Your task to perform on an android device: Turn on the flashlight Image 0: 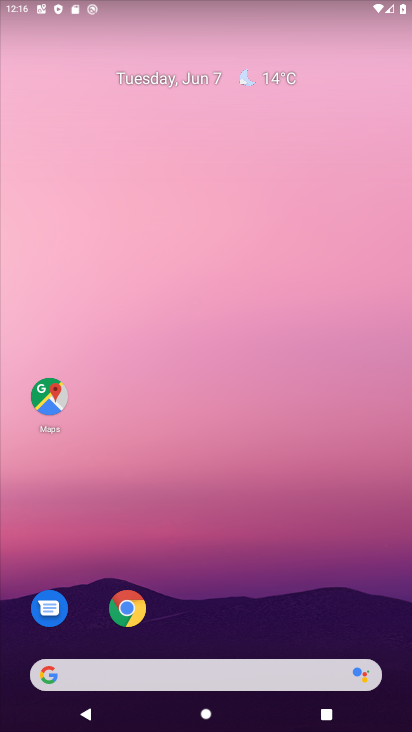
Step 0: drag from (295, 30) to (293, 676)
Your task to perform on an android device: Turn on the flashlight Image 1: 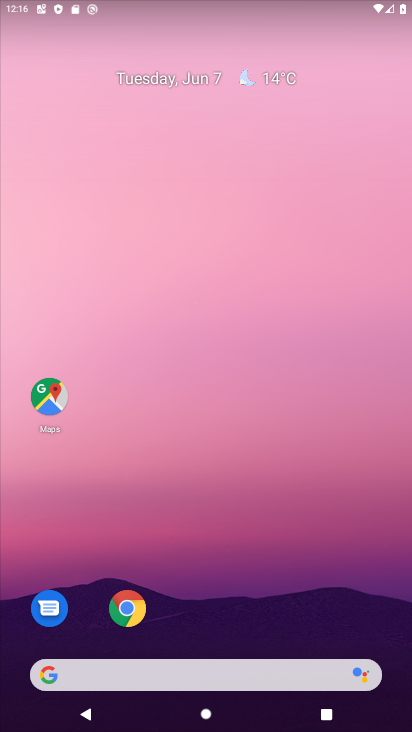
Step 1: task complete